Your task to perform on an android device: Open the web browser Image 0: 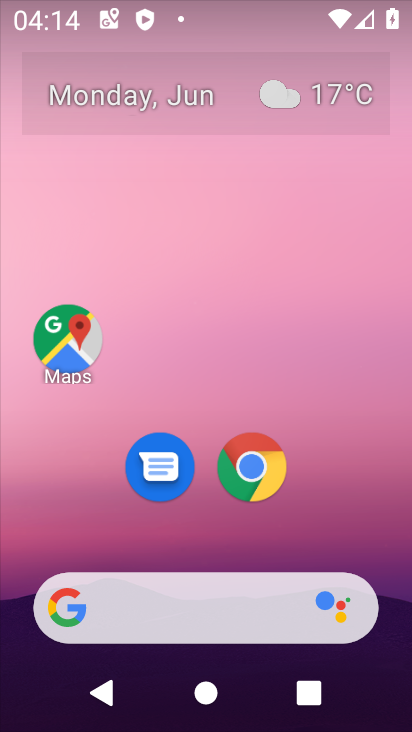
Step 0: click (269, 472)
Your task to perform on an android device: Open the web browser Image 1: 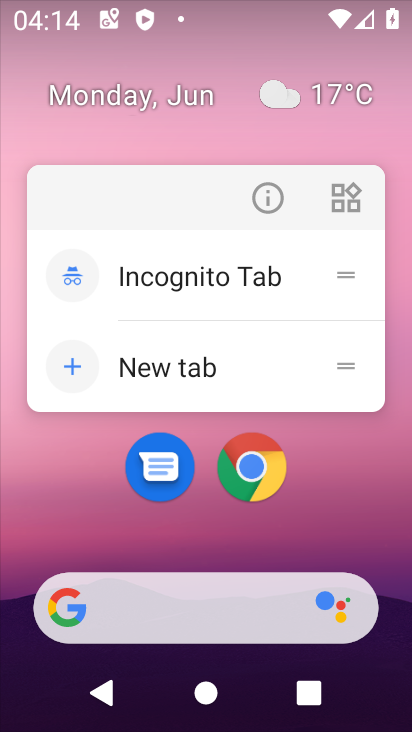
Step 1: click (269, 468)
Your task to perform on an android device: Open the web browser Image 2: 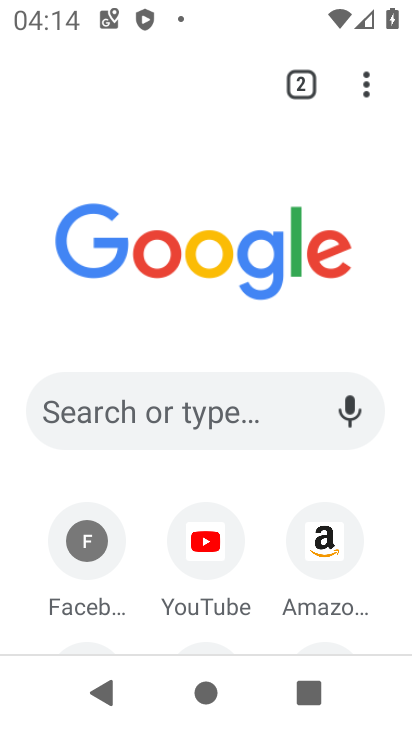
Step 2: task complete